Your task to perform on an android device: toggle show notifications on the lock screen Image 0: 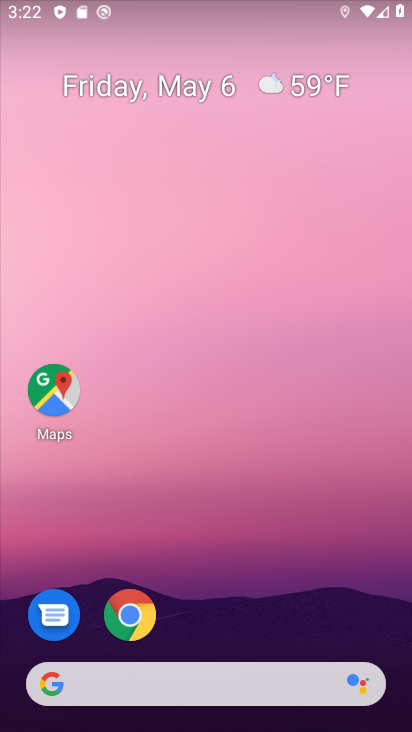
Step 0: drag from (246, 622) to (264, 102)
Your task to perform on an android device: toggle show notifications on the lock screen Image 1: 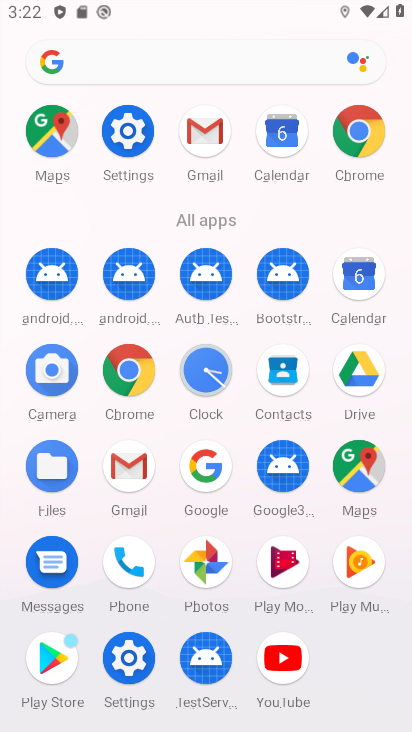
Step 1: click (134, 647)
Your task to perform on an android device: toggle show notifications on the lock screen Image 2: 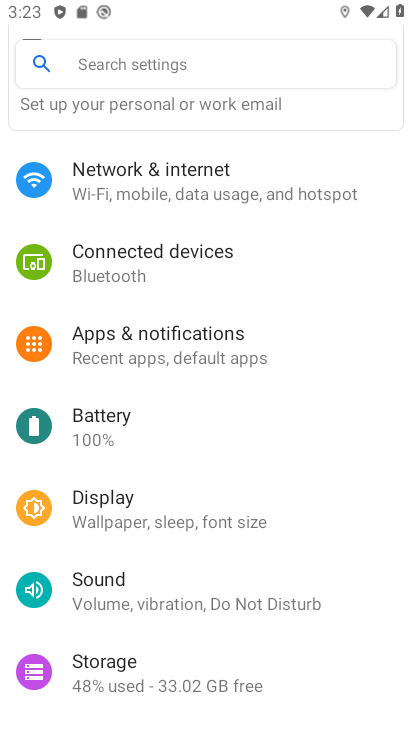
Step 2: click (208, 343)
Your task to perform on an android device: toggle show notifications on the lock screen Image 3: 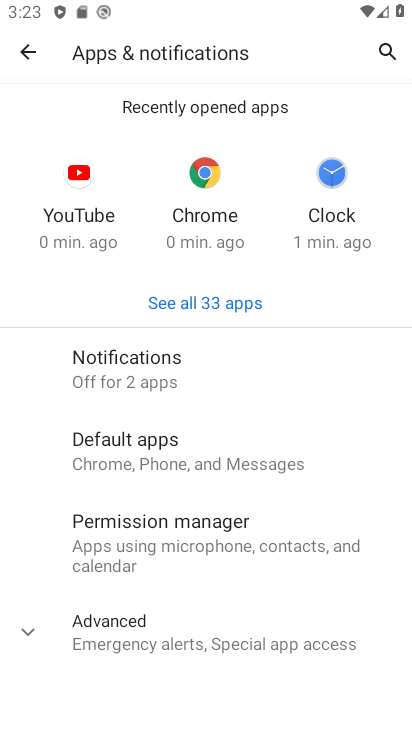
Step 3: click (139, 366)
Your task to perform on an android device: toggle show notifications on the lock screen Image 4: 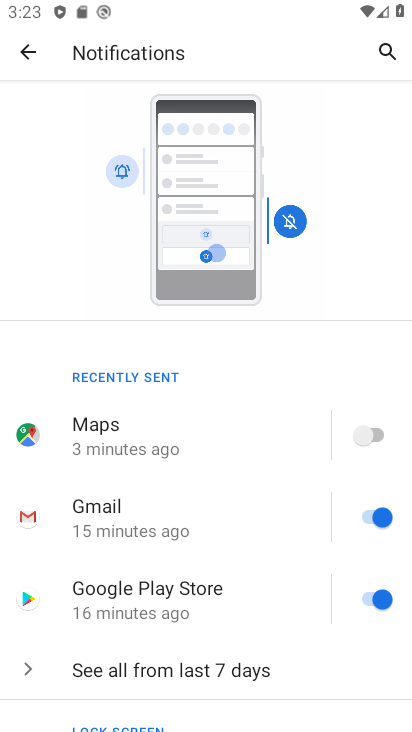
Step 4: drag from (281, 597) to (284, 385)
Your task to perform on an android device: toggle show notifications on the lock screen Image 5: 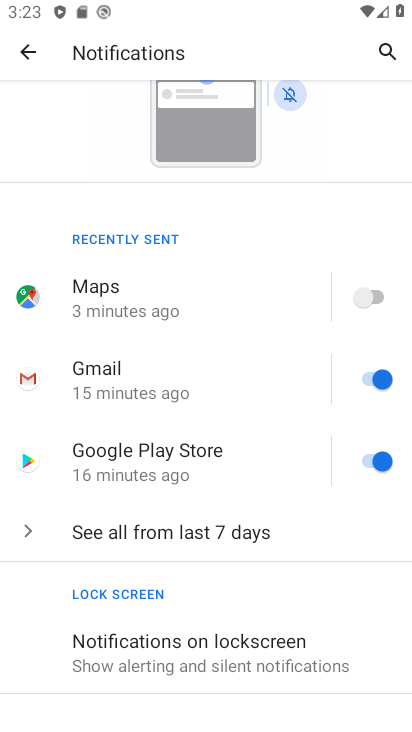
Step 5: click (249, 644)
Your task to perform on an android device: toggle show notifications on the lock screen Image 6: 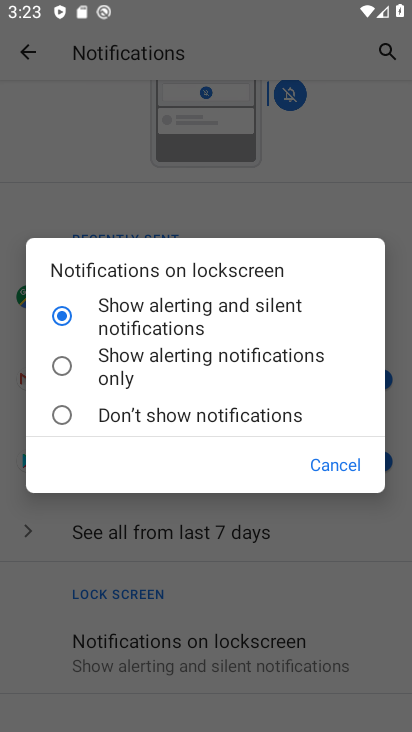
Step 6: click (207, 357)
Your task to perform on an android device: toggle show notifications on the lock screen Image 7: 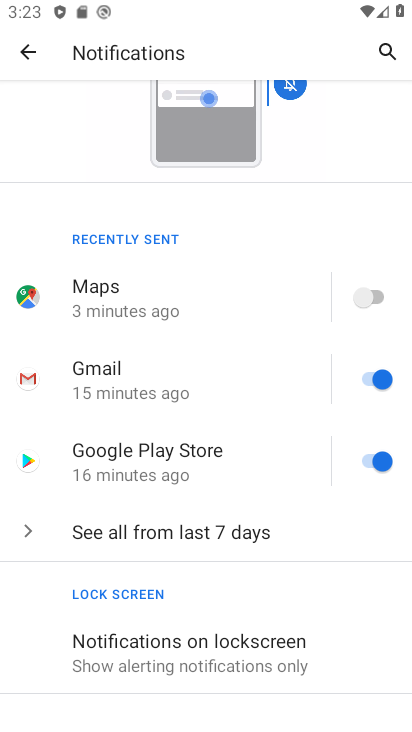
Step 7: task complete